Your task to perform on an android device: turn on javascript in the chrome app Image 0: 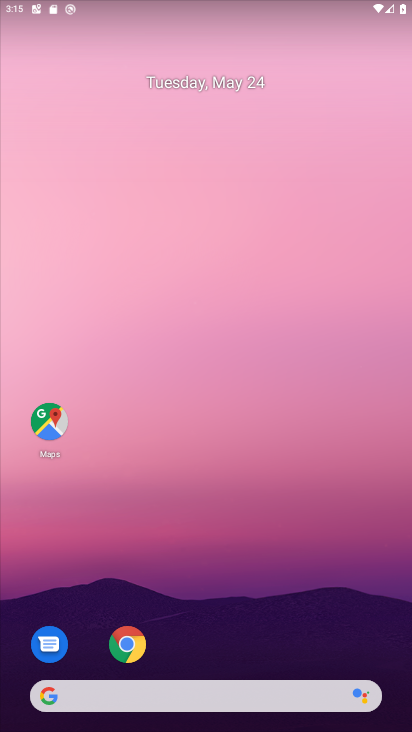
Step 0: drag from (335, 606) to (322, 205)
Your task to perform on an android device: turn on javascript in the chrome app Image 1: 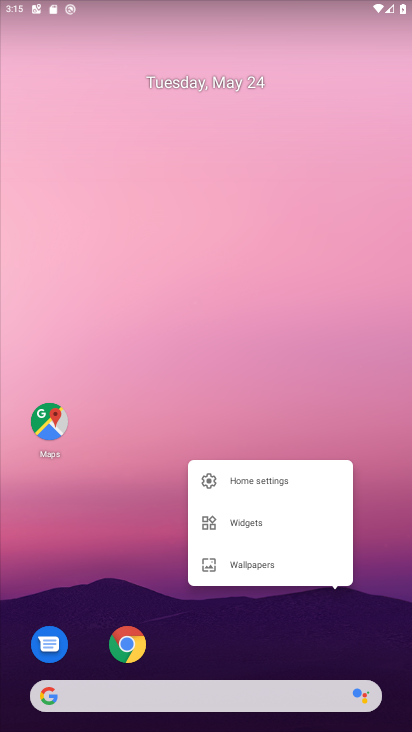
Step 1: click (322, 205)
Your task to perform on an android device: turn on javascript in the chrome app Image 2: 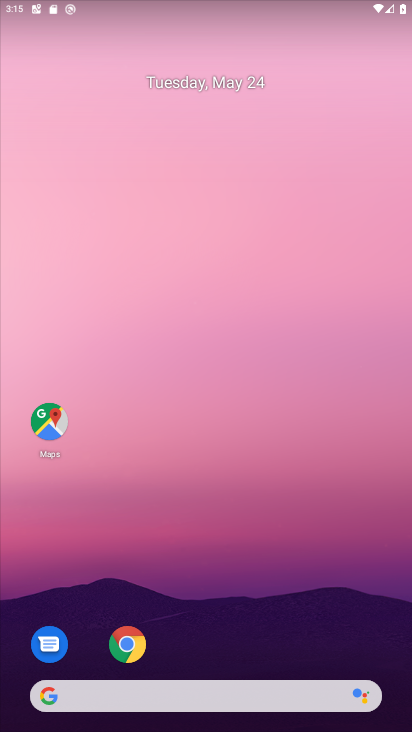
Step 2: click (130, 628)
Your task to perform on an android device: turn on javascript in the chrome app Image 3: 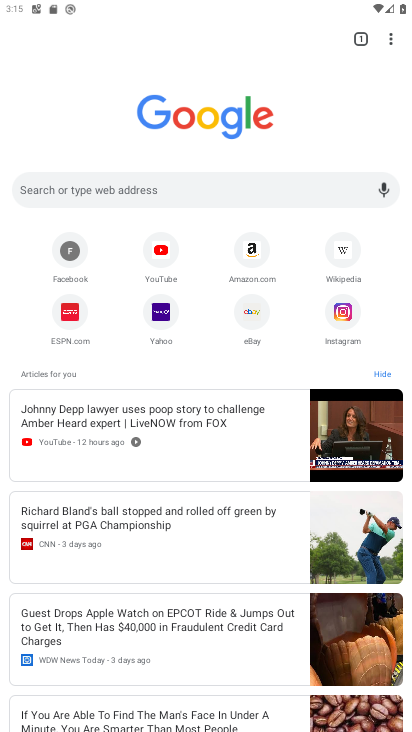
Step 3: click (394, 45)
Your task to perform on an android device: turn on javascript in the chrome app Image 4: 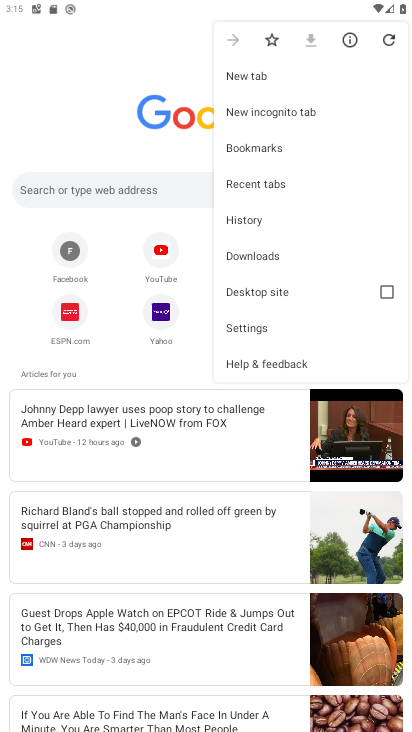
Step 4: click (320, 315)
Your task to perform on an android device: turn on javascript in the chrome app Image 5: 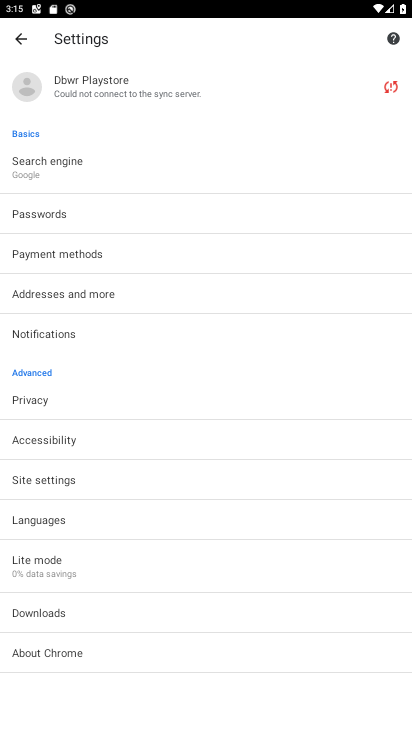
Step 5: click (80, 479)
Your task to perform on an android device: turn on javascript in the chrome app Image 6: 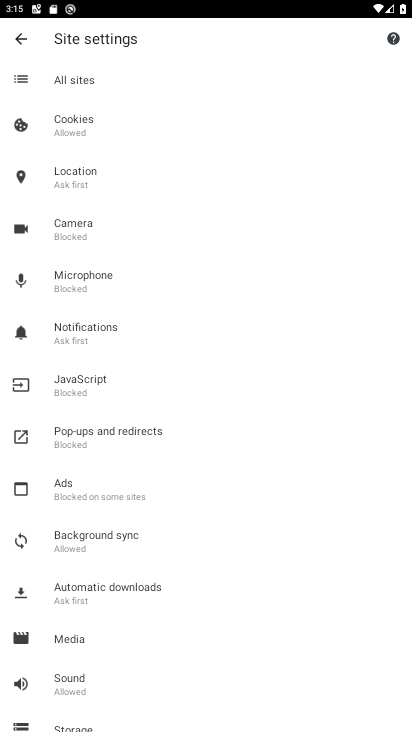
Step 6: click (139, 396)
Your task to perform on an android device: turn on javascript in the chrome app Image 7: 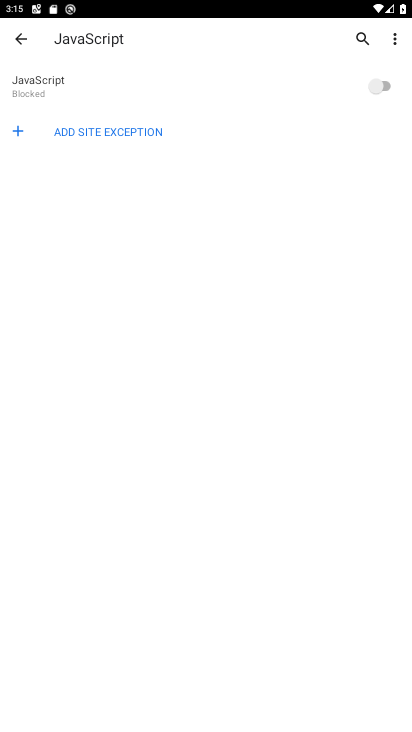
Step 7: click (384, 87)
Your task to perform on an android device: turn on javascript in the chrome app Image 8: 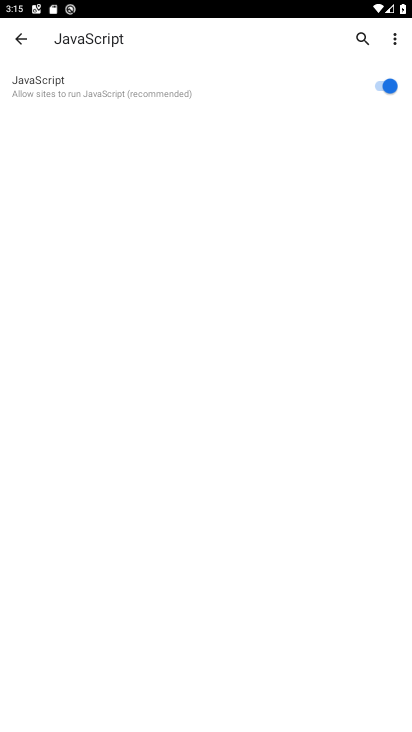
Step 8: task complete